Your task to perform on an android device: Search for a new lipgloss Image 0: 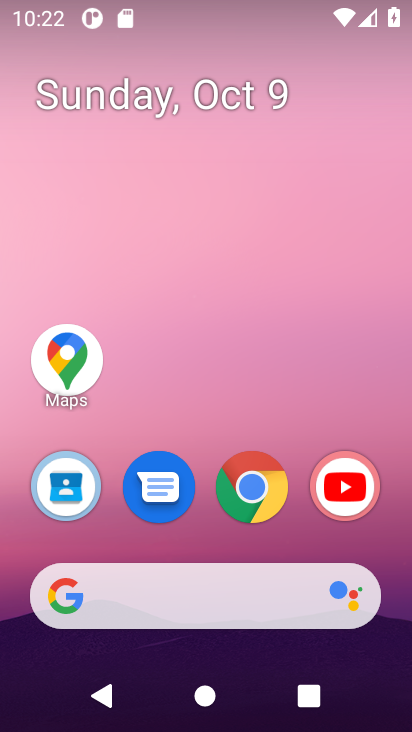
Step 0: click (240, 496)
Your task to perform on an android device: Search for a new lipgloss Image 1: 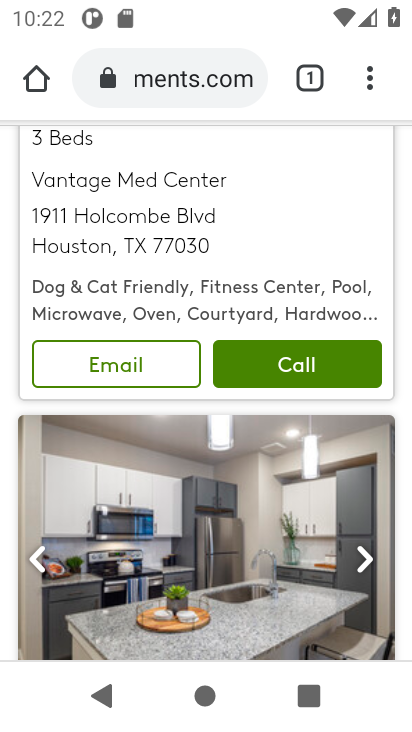
Step 1: click (205, 85)
Your task to perform on an android device: Search for a new lipgloss Image 2: 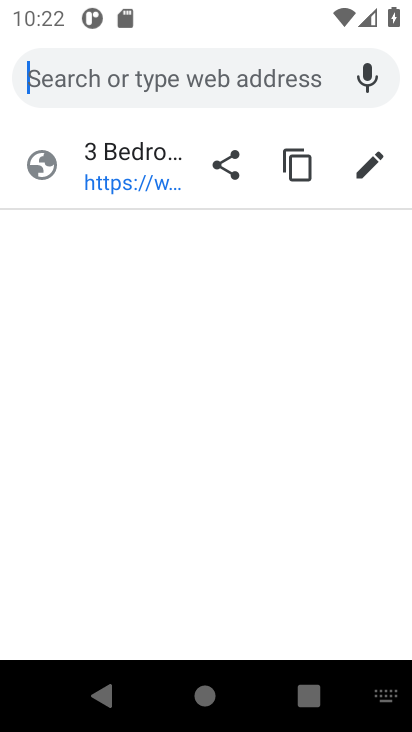
Step 2: type "new lipgloss"
Your task to perform on an android device: Search for a new lipgloss Image 3: 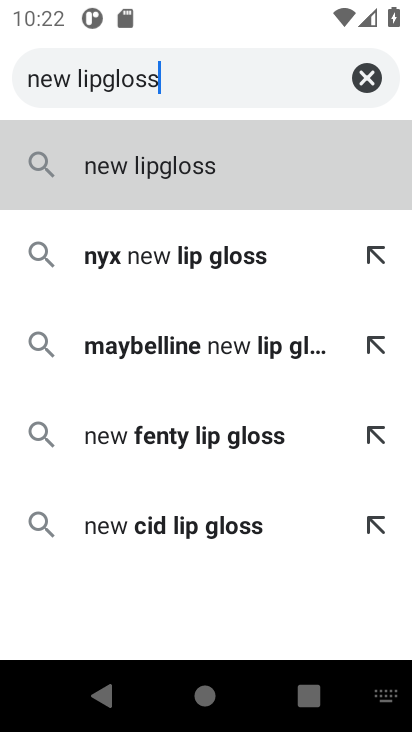
Step 3: press enter
Your task to perform on an android device: Search for a new lipgloss Image 4: 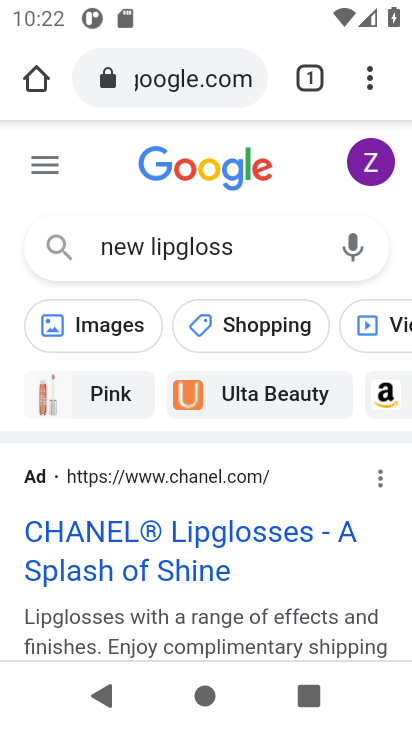
Step 4: drag from (239, 617) to (243, 359)
Your task to perform on an android device: Search for a new lipgloss Image 5: 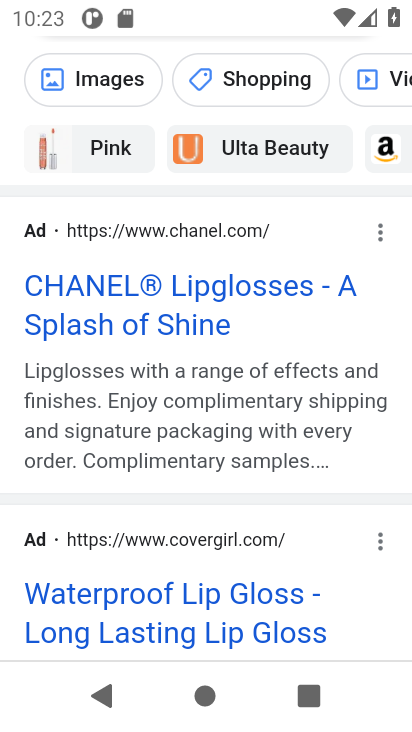
Step 5: drag from (254, 627) to (250, 282)
Your task to perform on an android device: Search for a new lipgloss Image 6: 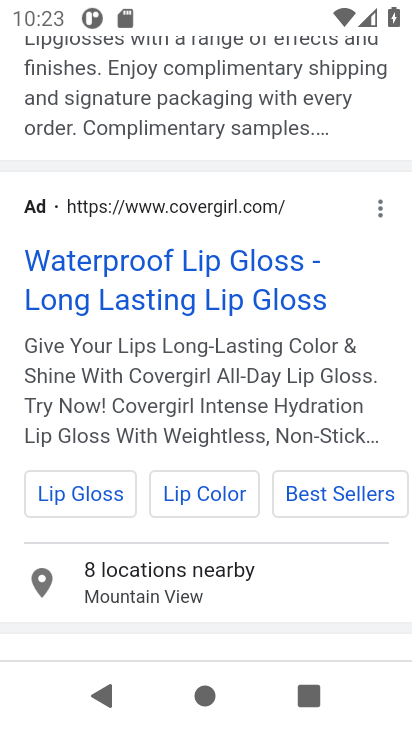
Step 6: click (238, 295)
Your task to perform on an android device: Search for a new lipgloss Image 7: 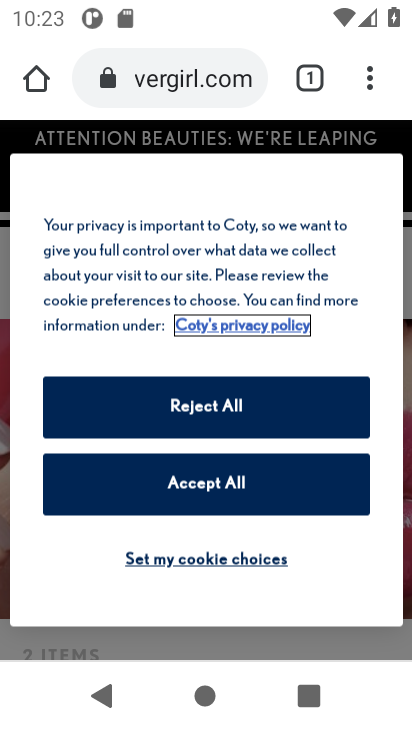
Step 7: click (240, 487)
Your task to perform on an android device: Search for a new lipgloss Image 8: 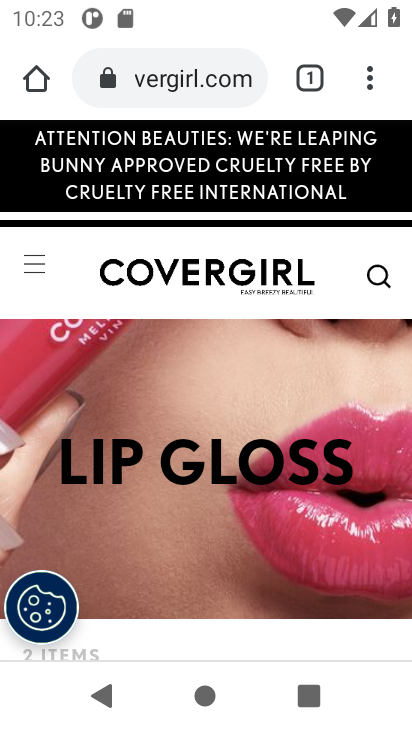
Step 8: task complete